Your task to perform on an android device: change alarm snooze length Image 0: 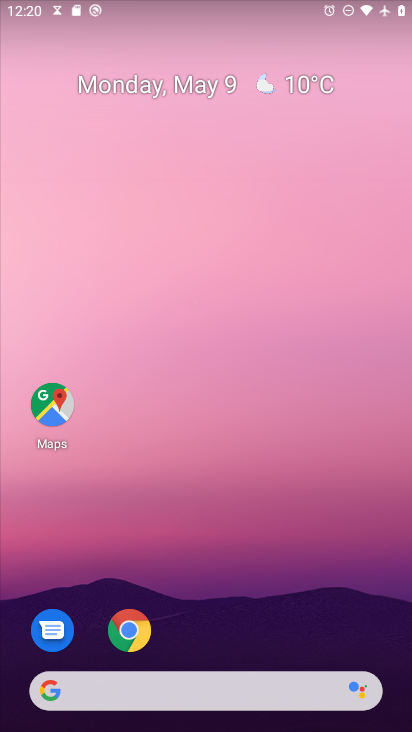
Step 0: drag from (196, 696) to (357, 22)
Your task to perform on an android device: change alarm snooze length Image 1: 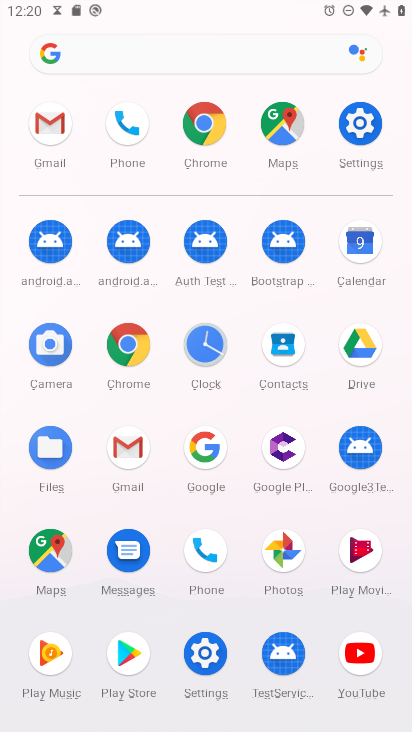
Step 1: click (200, 355)
Your task to perform on an android device: change alarm snooze length Image 2: 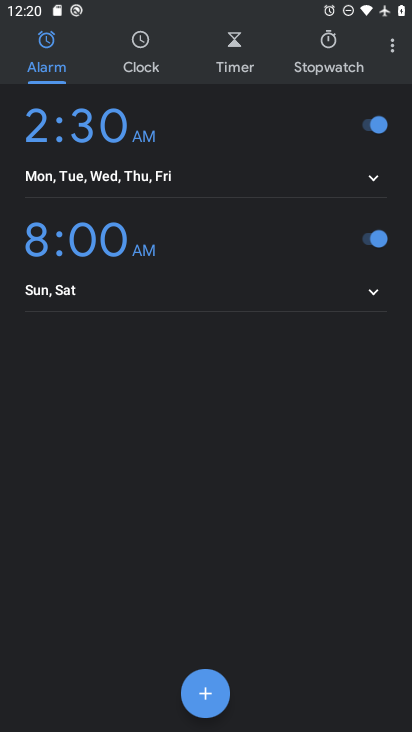
Step 2: click (395, 57)
Your task to perform on an android device: change alarm snooze length Image 3: 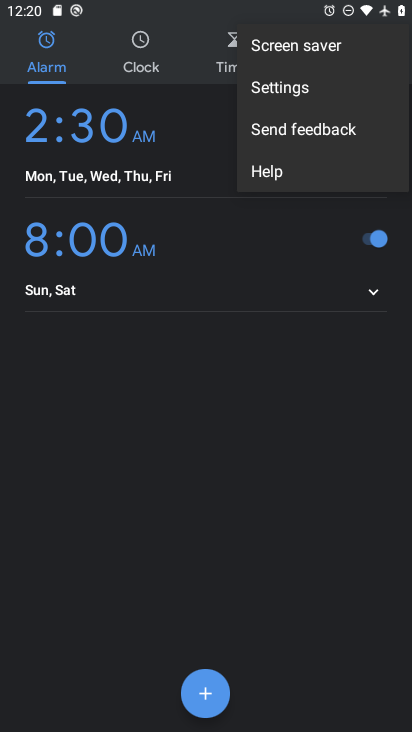
Step 3: click (266, 95)
Your task to perform on an android device: change alarm snooze length Image 4: 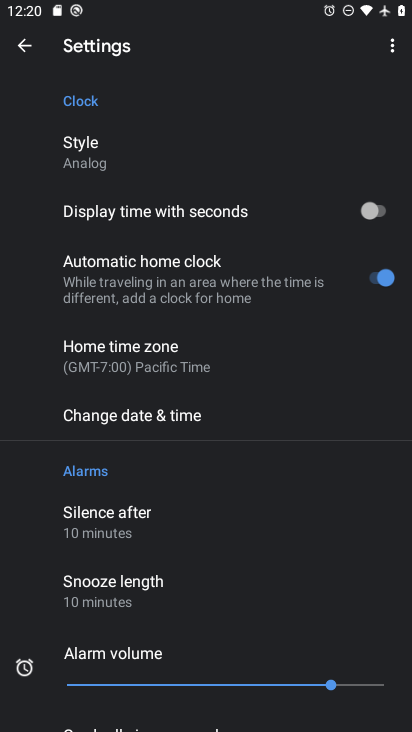
Step 4: drag from (179, 621) to (255, 504)
Your task to perform on an android device: change alarm snooze length Image 5: 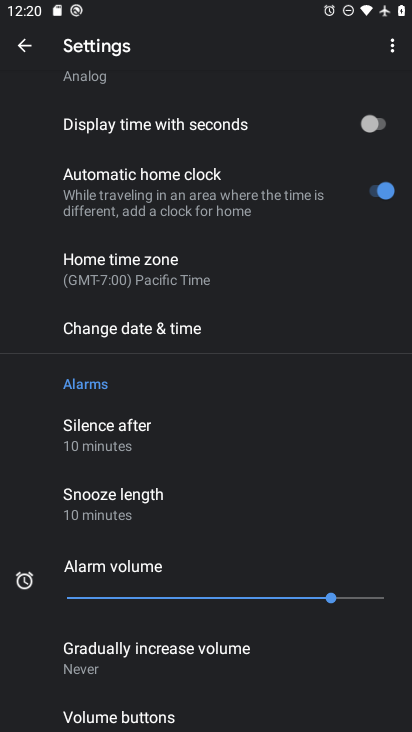
Step 5: click (129, 483)
Your task to perform on an android device: change alarm snooze length Image 6: 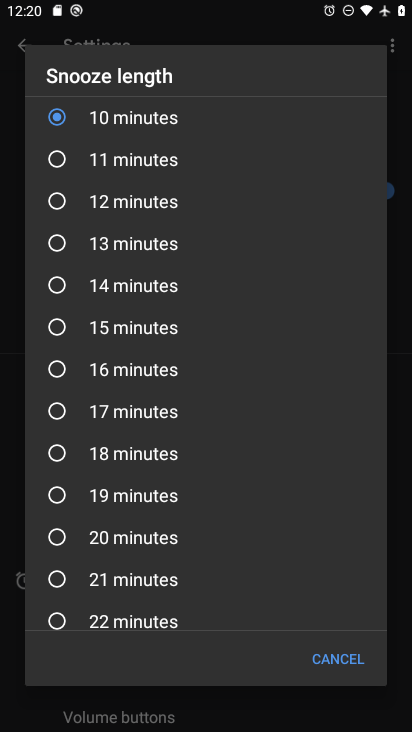
Step 6: click (60, 326)
Your task to perform on an android device: change alarm snooze length Image 7: 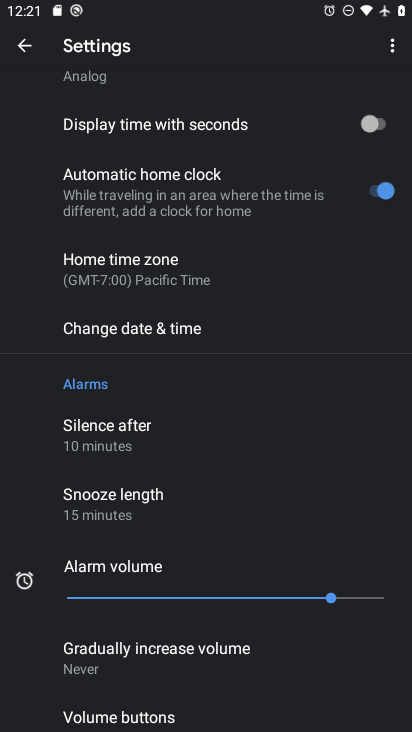
Step 7: task complete